Your task to perform on an android device: clear history in the chrome app Image 0: 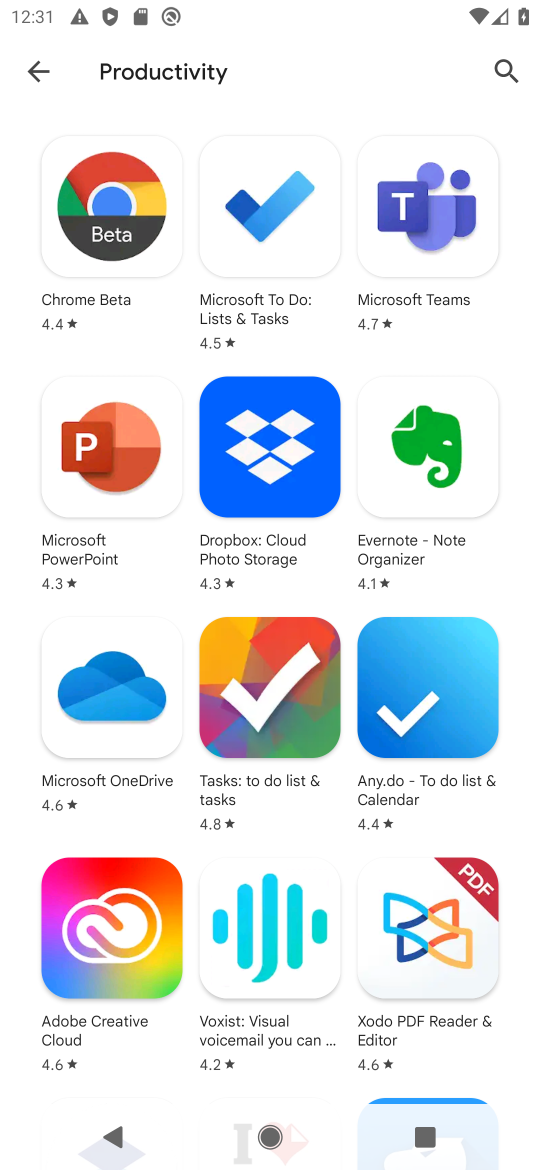
Step 0: press back button
Your task to perform on an android device: clear history in the chrome app Image 1: 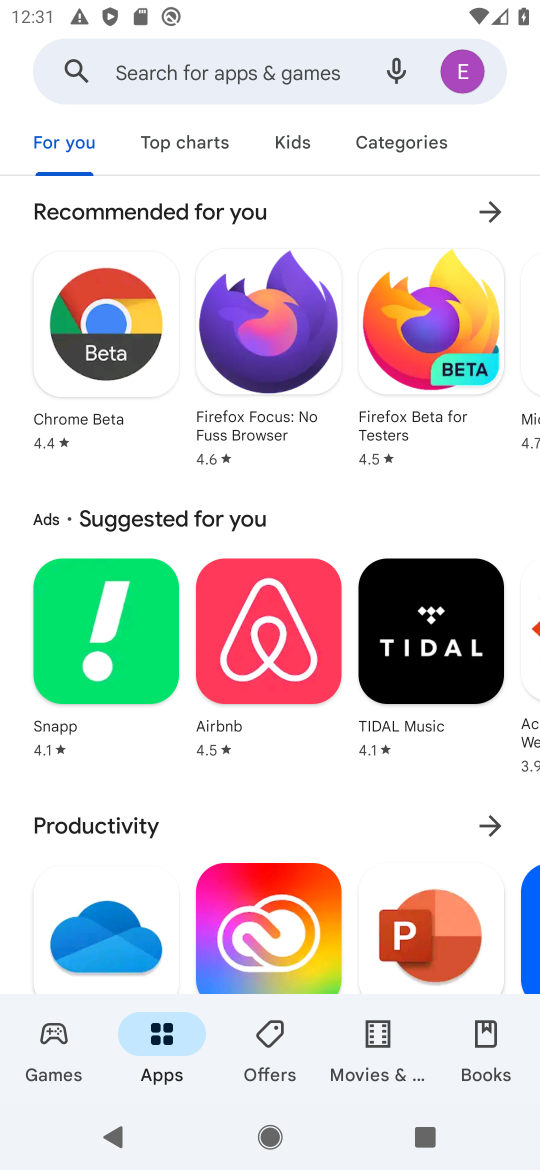
Step 1: press back button
Your task to perform on an android device: clear history in the chrome app Image 2: 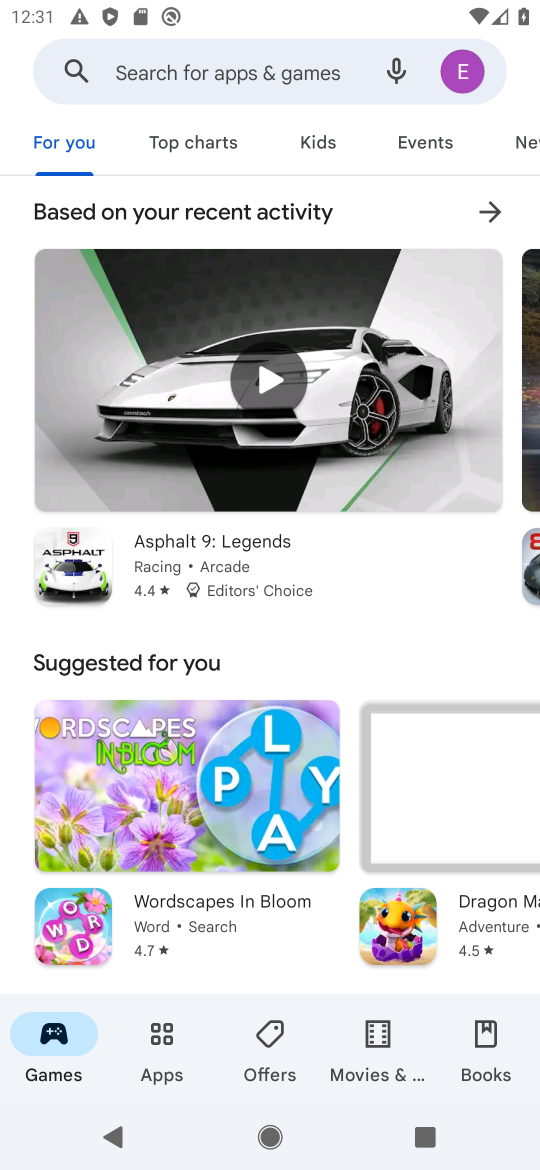
Step 2: press back button
Your task to perform on an android device: clear history in the chrome app Image 3: 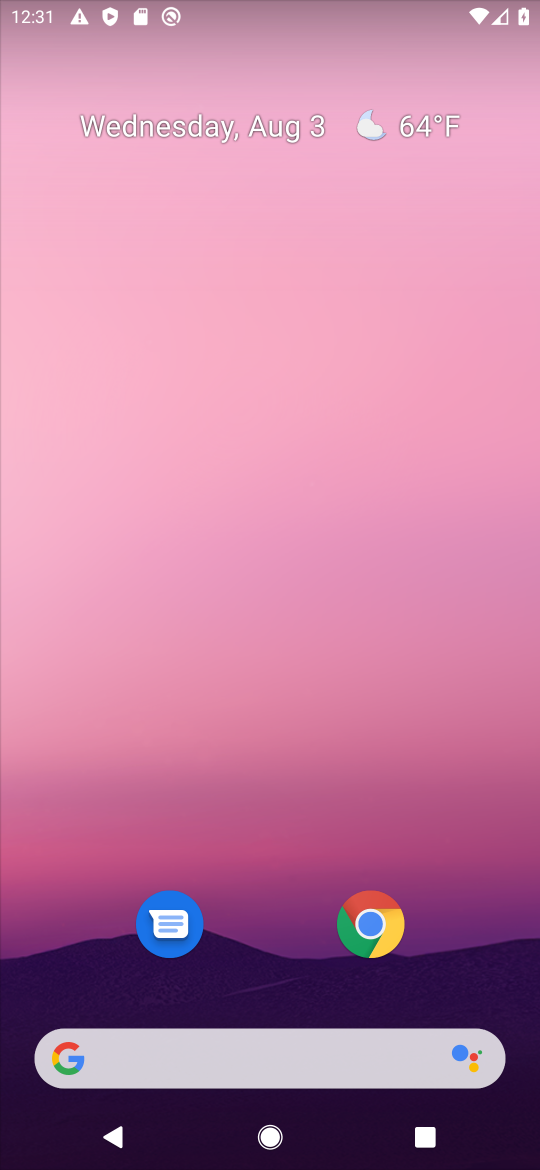
Step 3: click (364, 921)
Your task to perform on an android device: clear history in the chrome app Image 4: 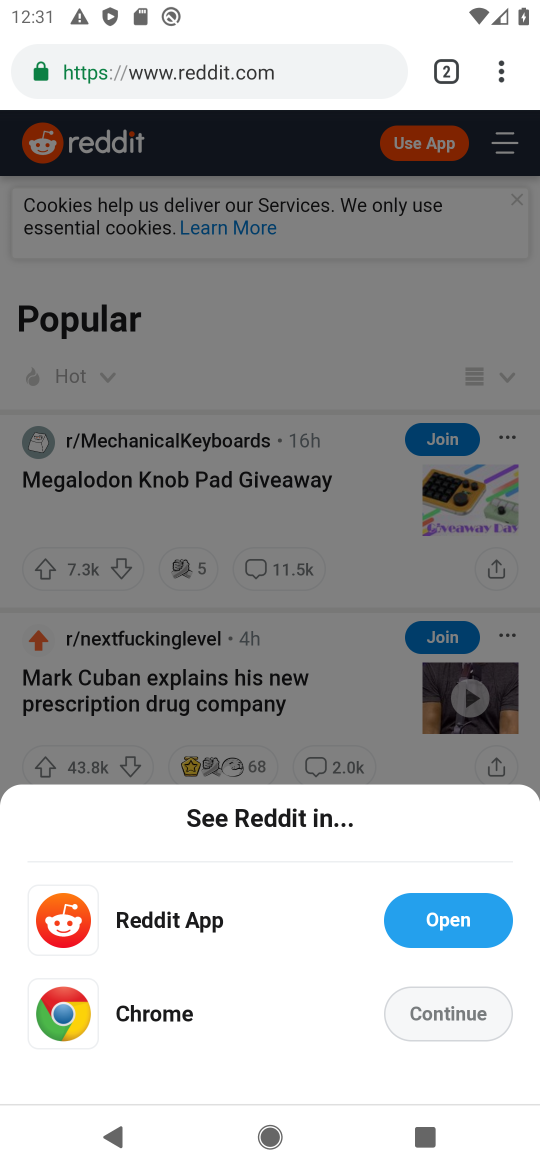
Step 4: drag from (511, 62) to (228, 397)
Your task to perform on an android device: clear history in the chrome app Image 5: 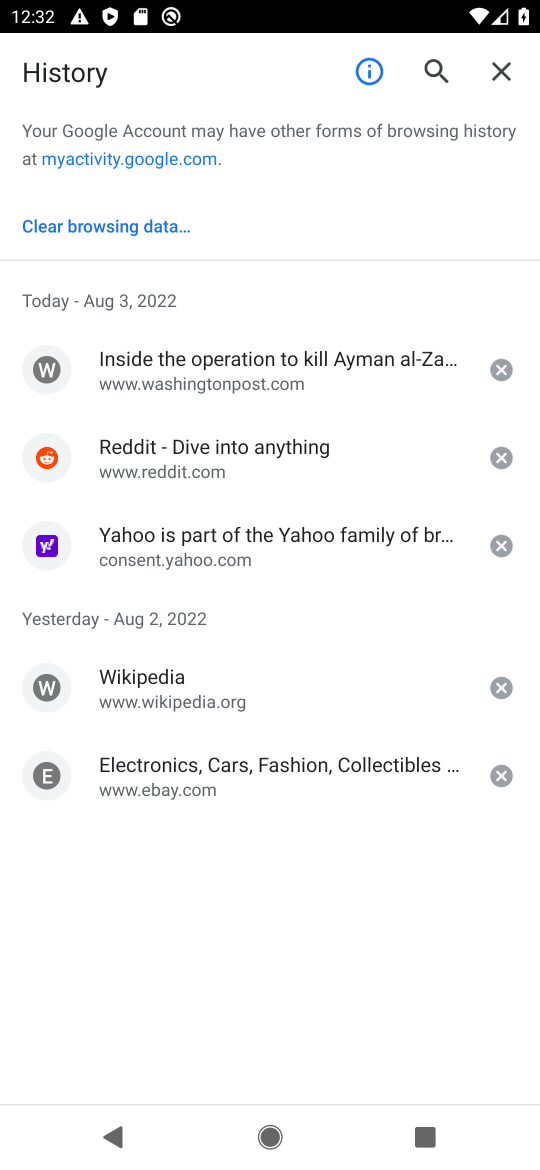
Step 5: click (58, 245)
Your task to perform on an android device: clear history in the chrome app Image 6: 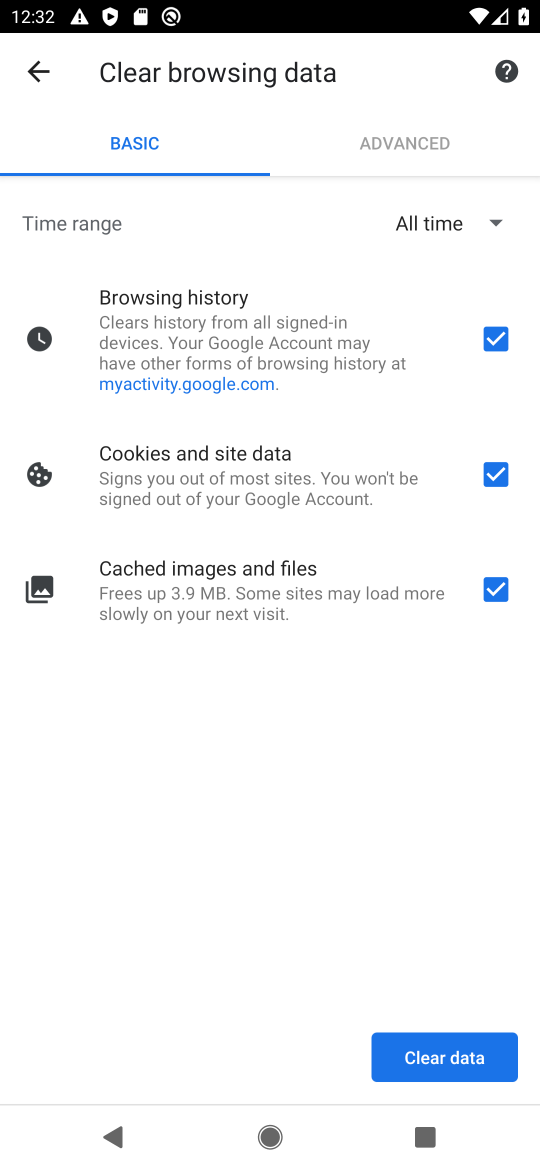
Step 6: click (454, 1064)
Your task to perform on an android device: clear history in the chrome app Image 7: 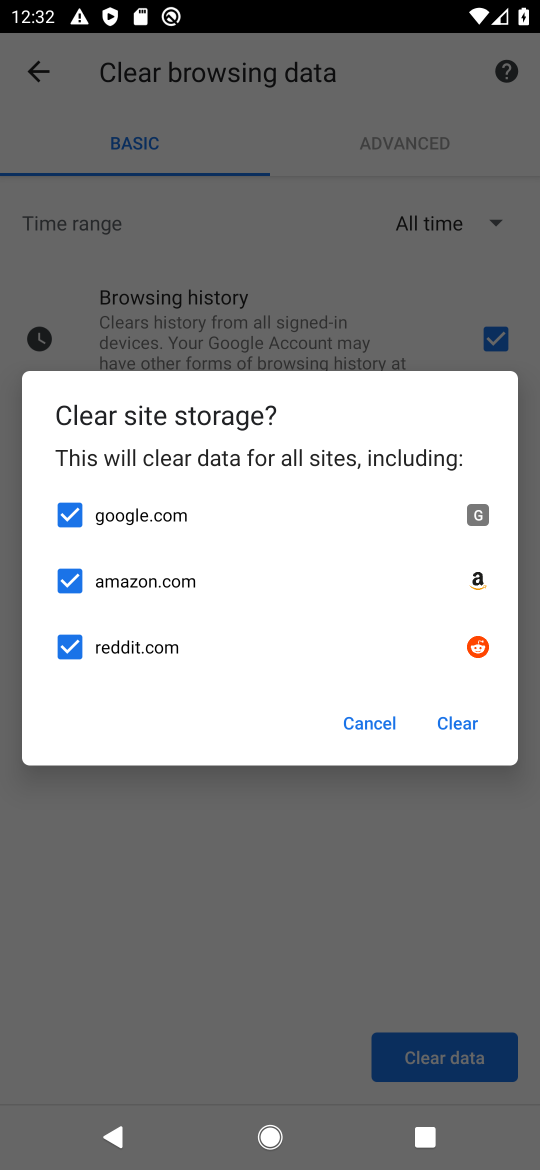
Step 7: click (455, 730)
Your task to perform on an android device: clear history in the chrome app Image 8: 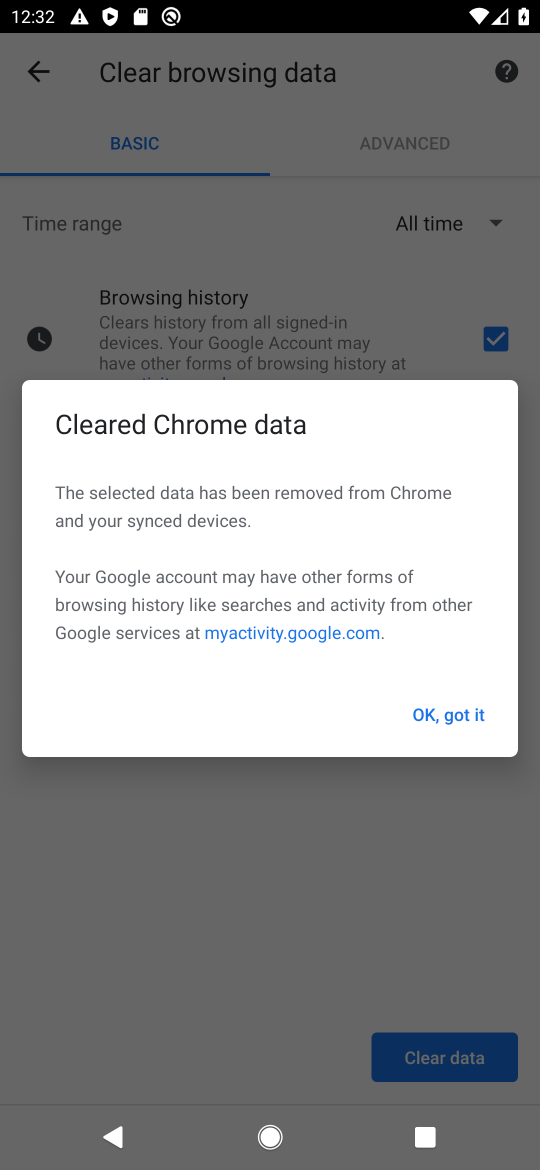
Step 8: click (471, 720)
Your task to perform on an android device: clear history in the chrome app Image 9: 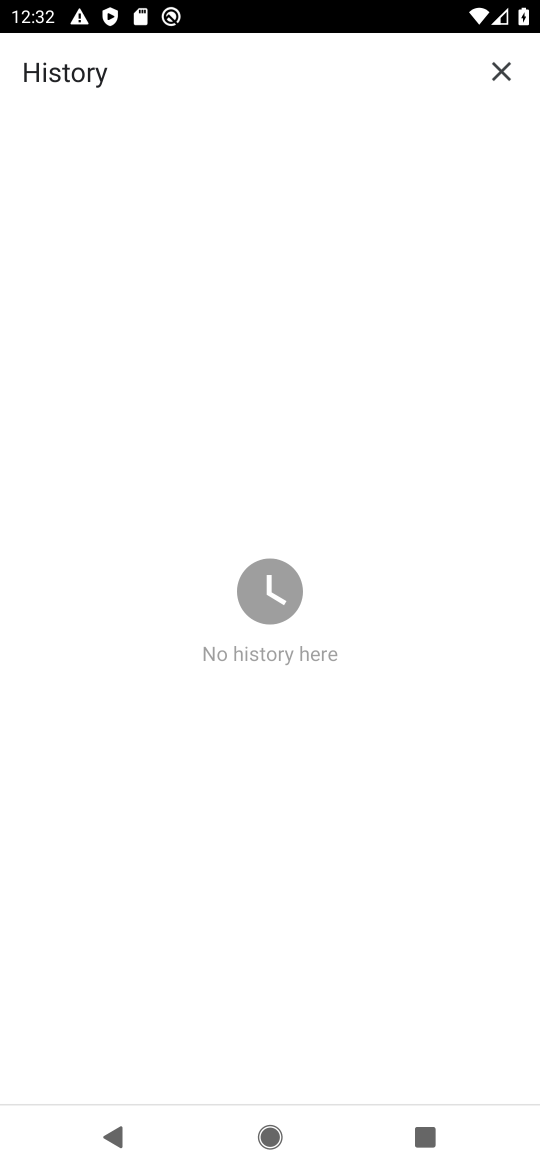
Step 9: task complete